Your task to perform on an android device: open sync settings in chrome Image 0: 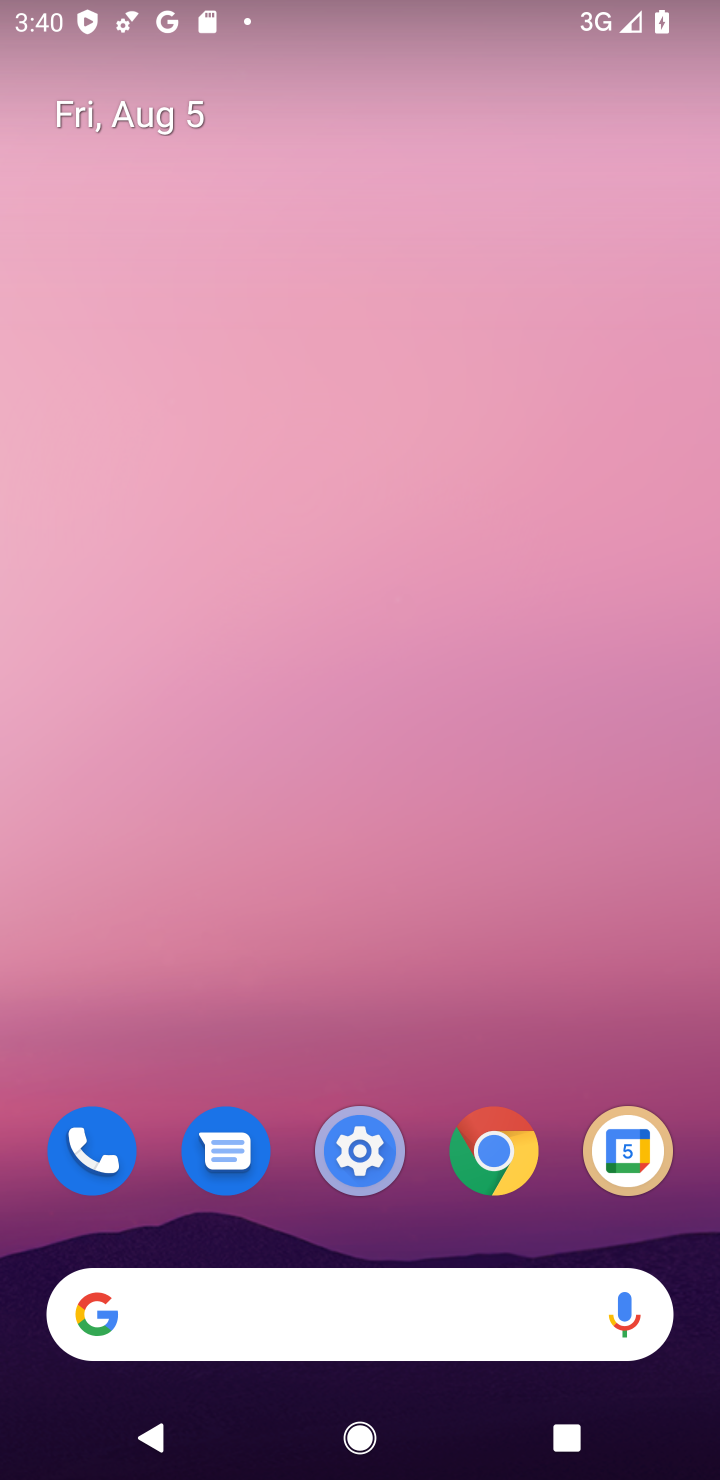
Step 0: click (483, 1167)
Your task to perform on an android device: open sync settings in chrome Image 1: 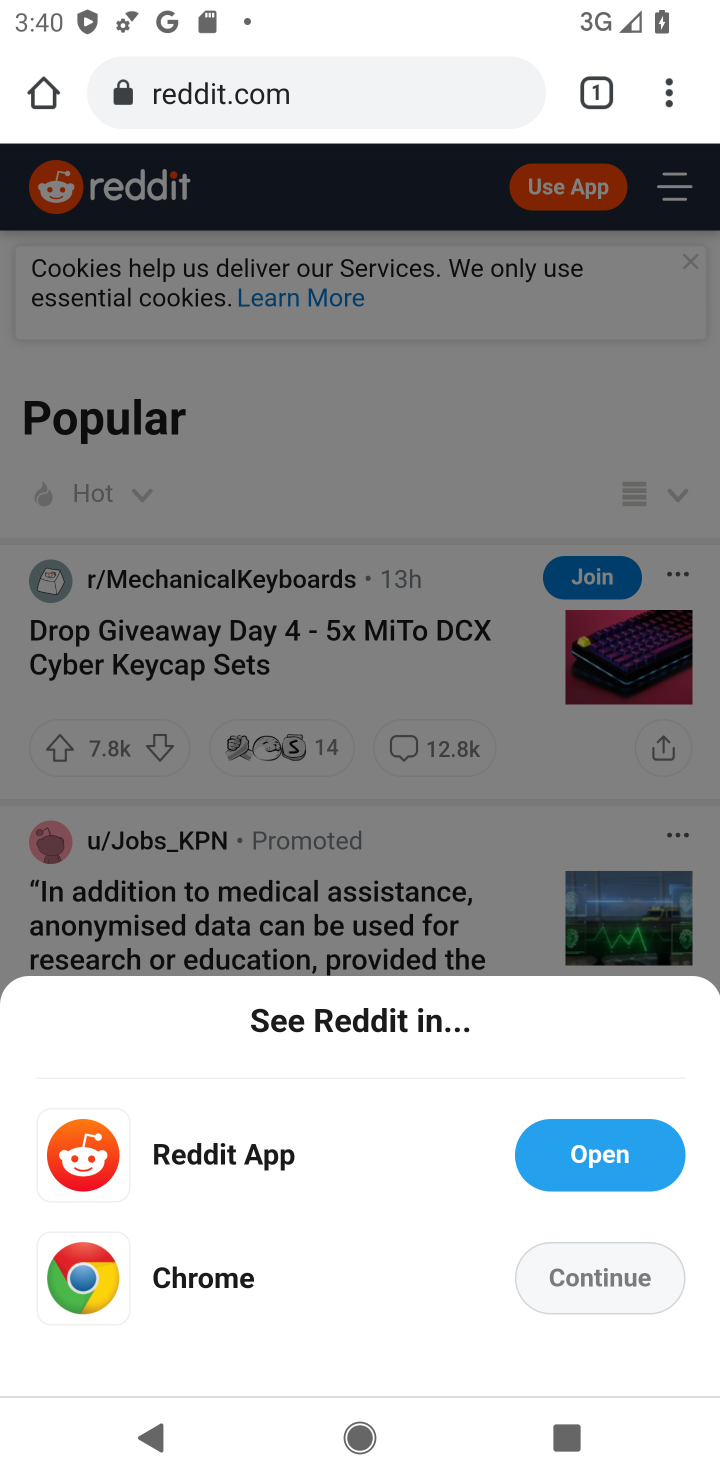
Step 1: click (665, 102)
Your task to perform on an android device: open sync settings in chrome Image 2: 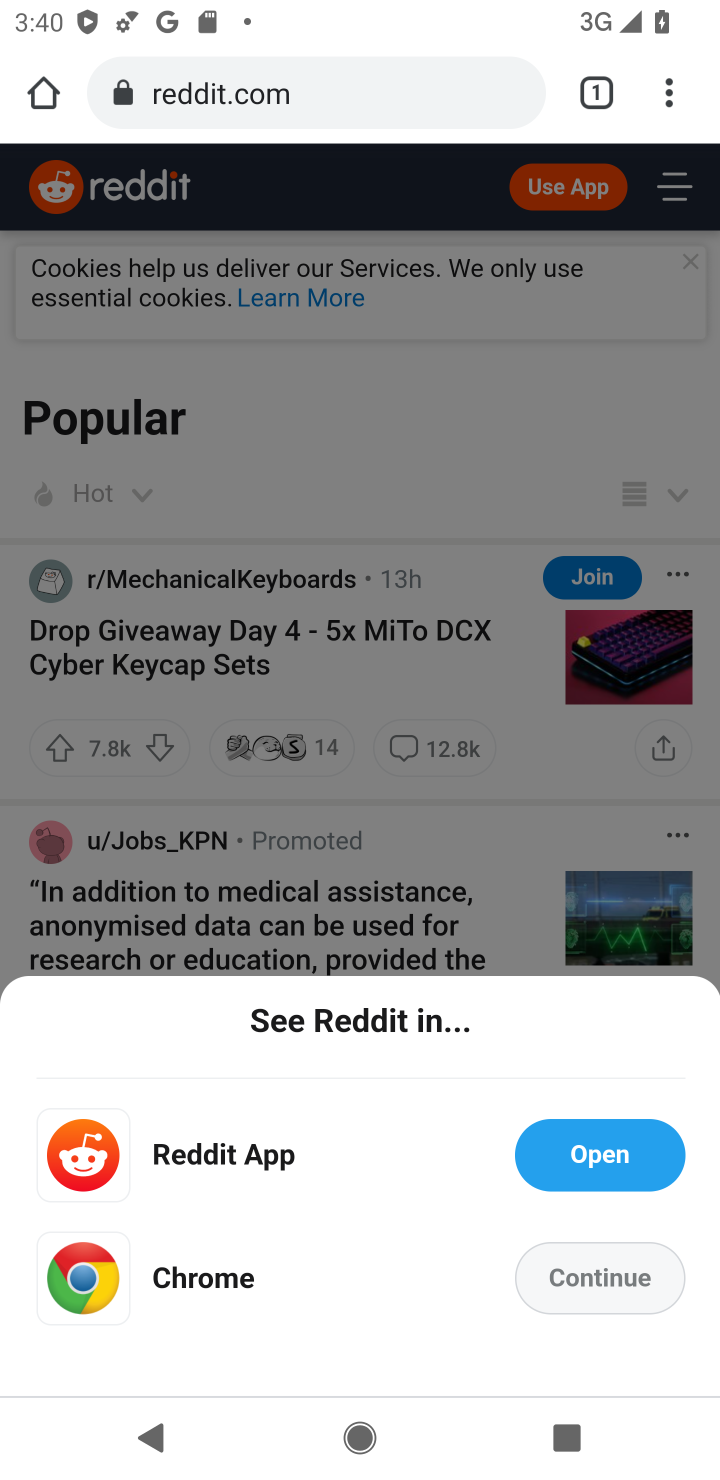
Step 2: click (667, 96)
Your task to perform on an android device: open sync settings in chrome Image 3: 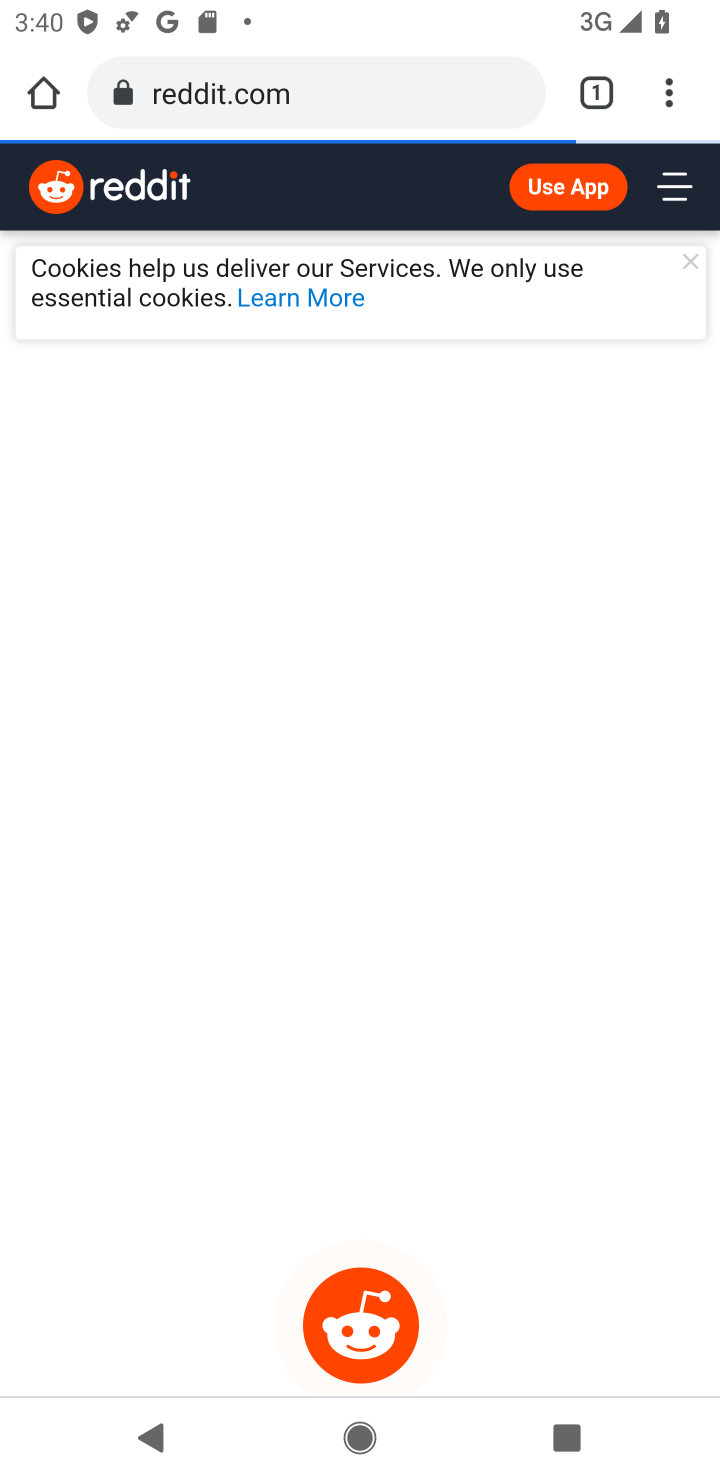
Step 3: click (690, 90)
Your task to perform on an android device: open sync settings in chrome Image 4: 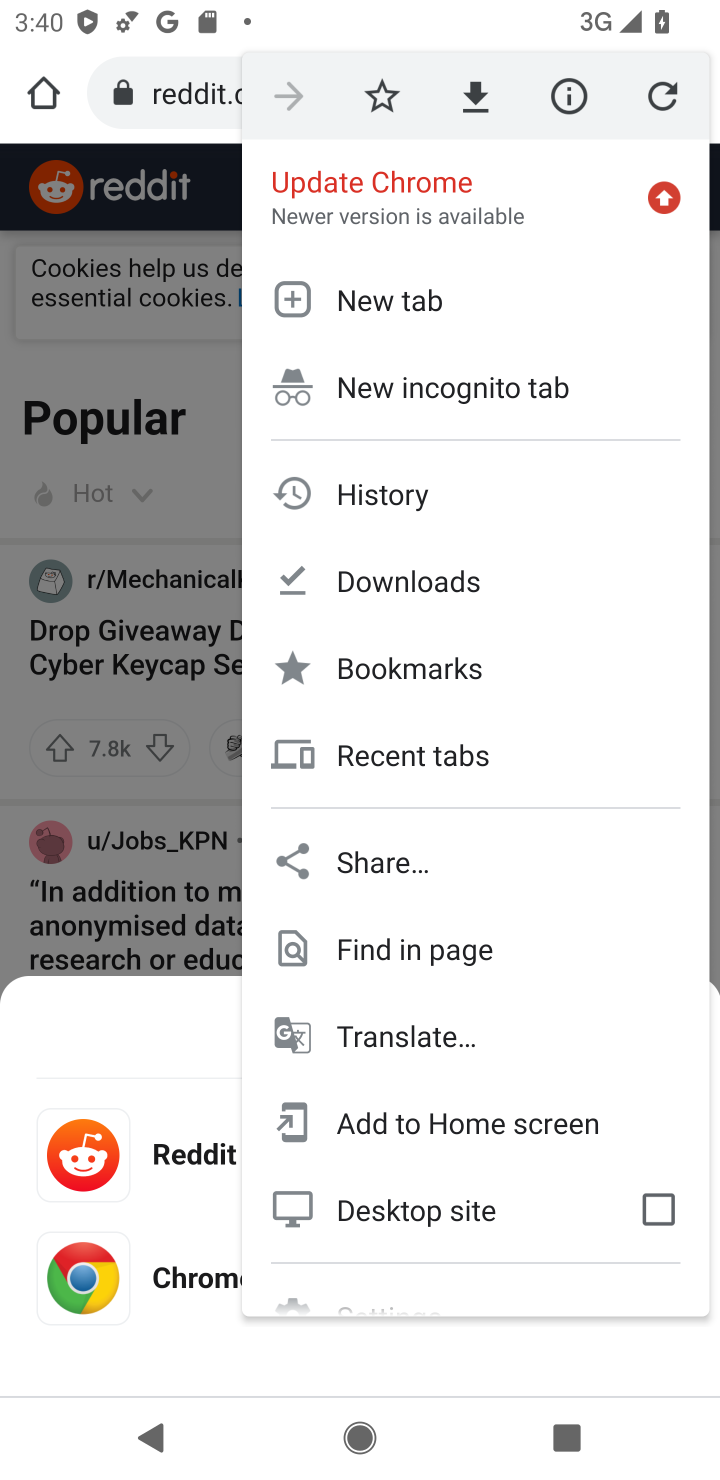
Step 4: drag from (421, 1186) to (387, 701)
Your task to perform on an android device: open sync settings in chrome Image 5: 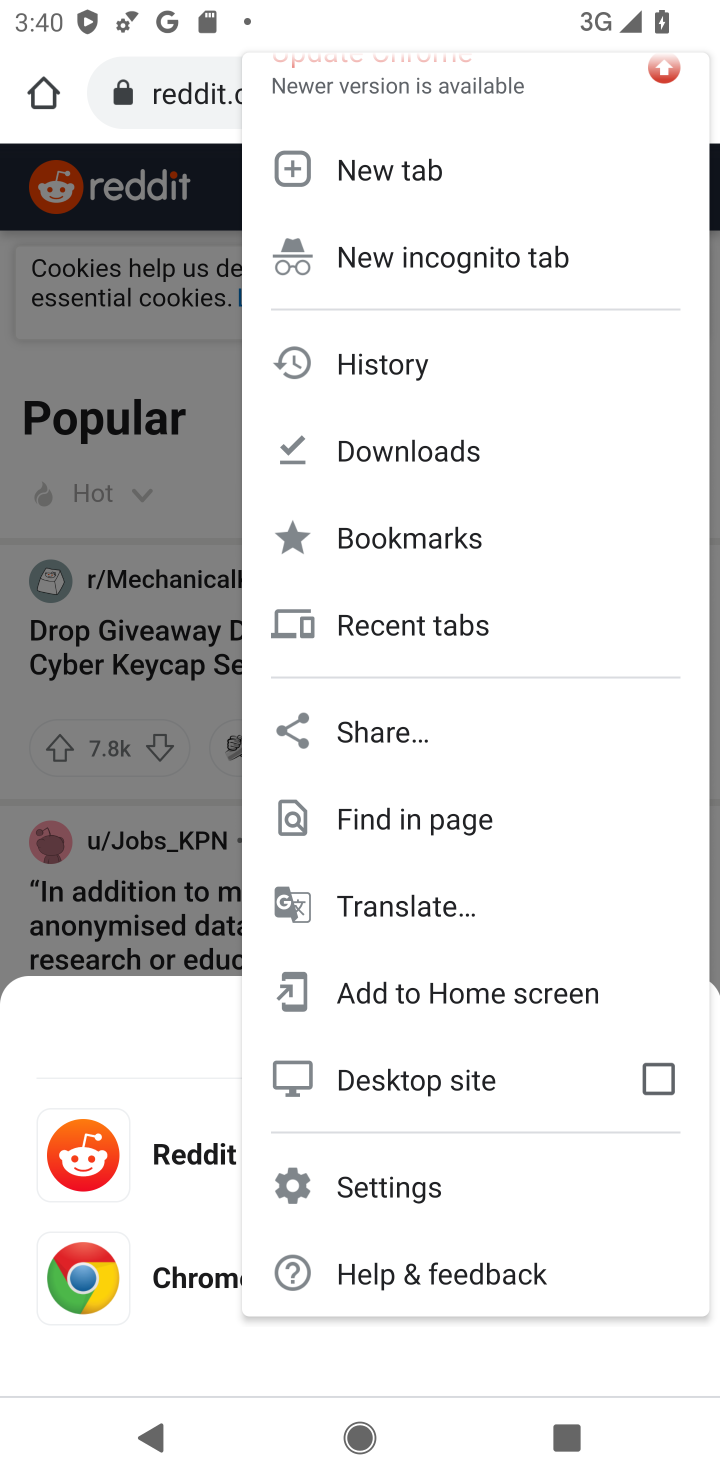
Step 5: click (381, 1169)
Your task to perform on an android device: open sync settings in chrome Image 6: 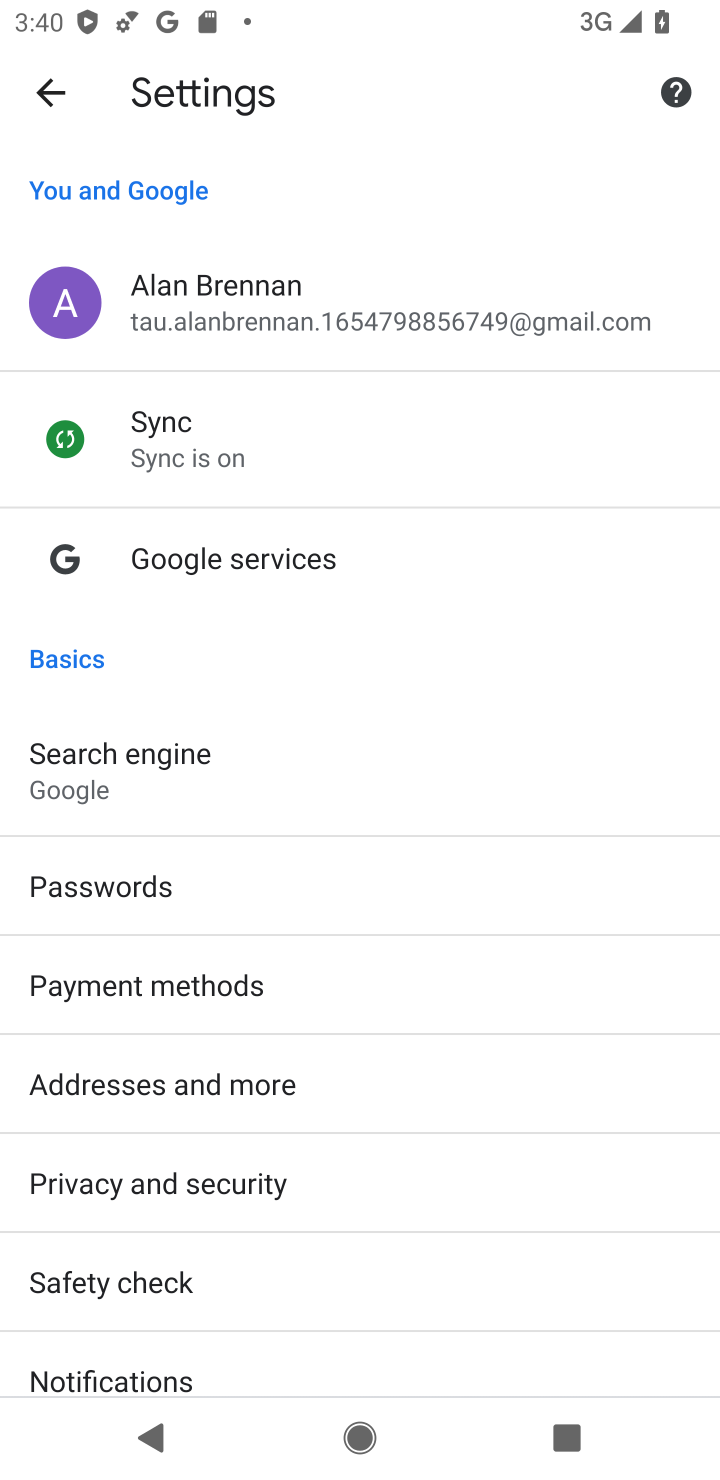
Step 6: click (282, 443)
Your task to perform on an android device: open sync settings in chrome Image 7: 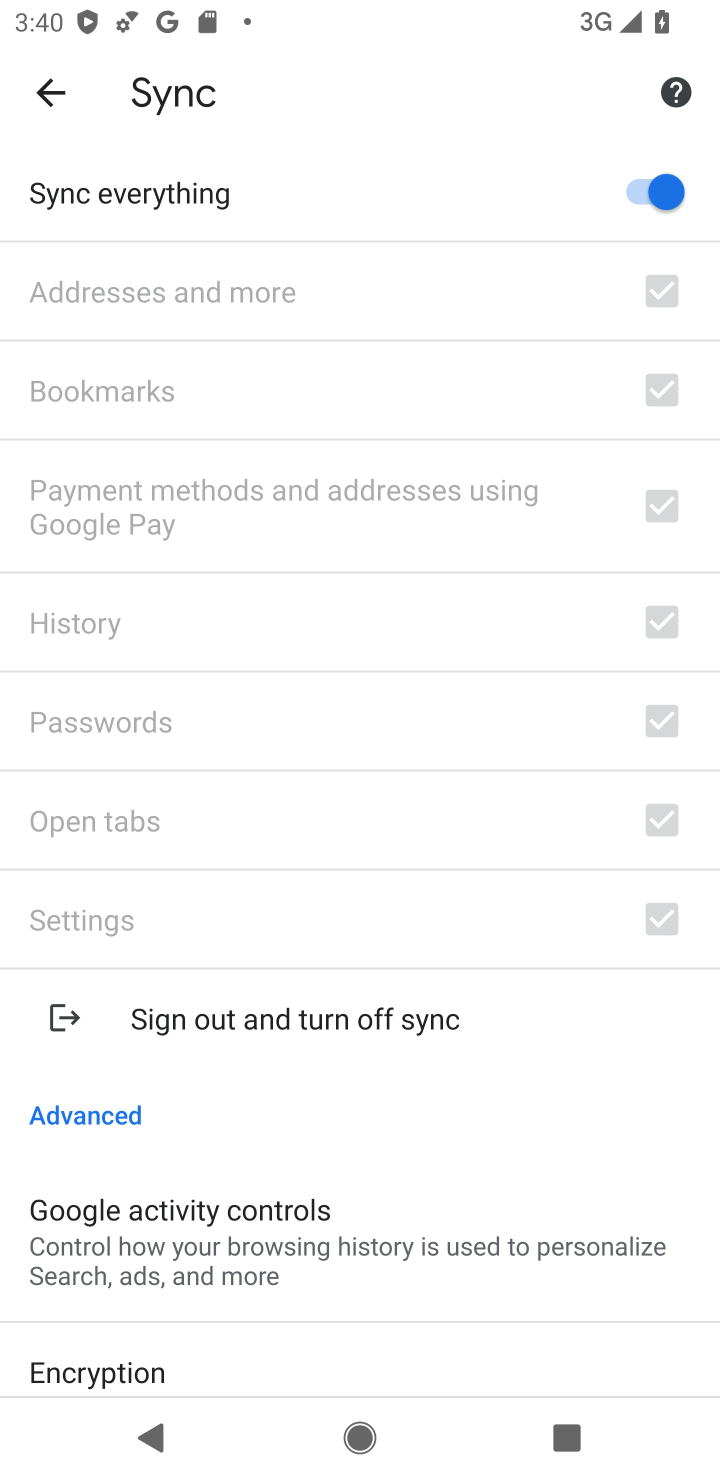
Step 7: task complete